Your task to perform on an android device: Open the phone app and click the voicemail tab. Image 0: 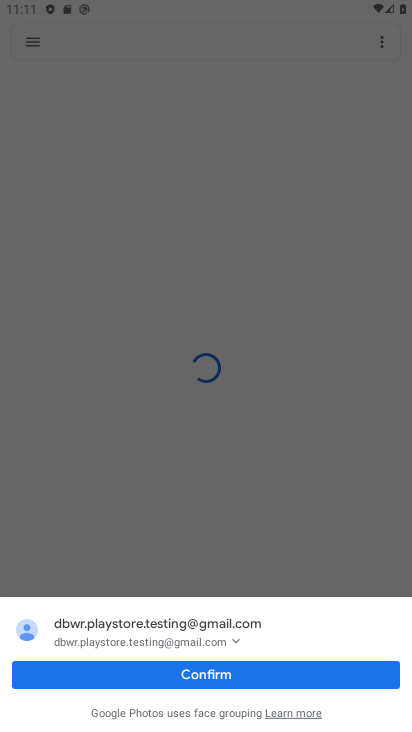
Step 0: press home button
Your task to perform on an android device: Open the phone app and click the voicemail tab. Image 1: 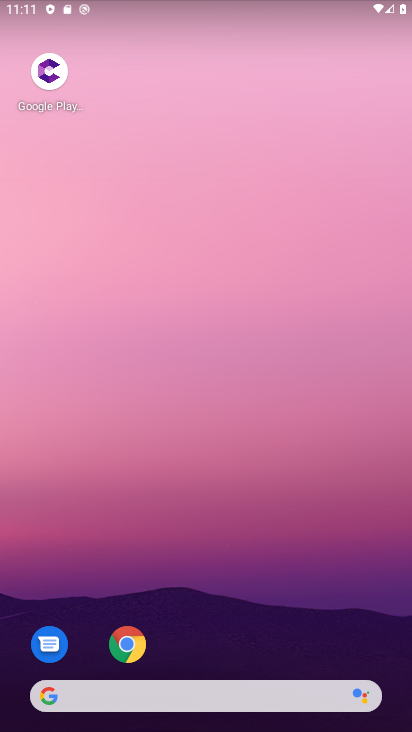
Step 1: drag from (283, 632) to (286, 136)
Your task to perform on an android device: Open the phone app and click the voicemail tab. Image 2: 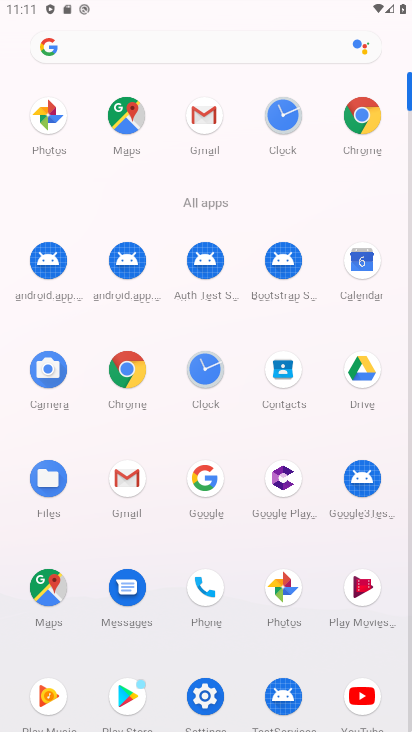
Step 2: drag from (230, 218) to (251, 56)
Your task to perform on an android device: Open the phone app and click the voicemail tab. Image 3: 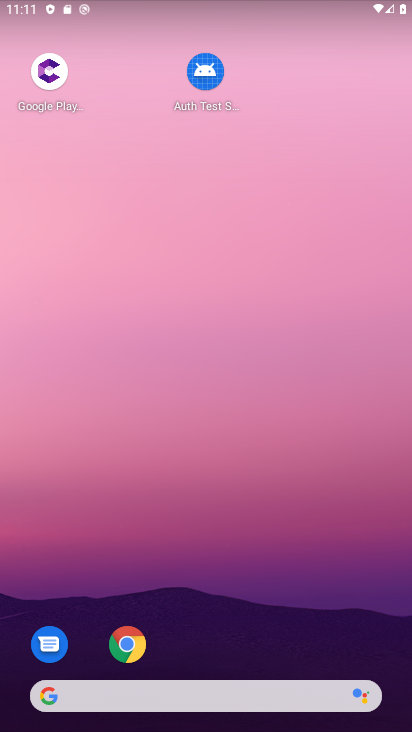
Step 3: drag from (226, 586) to (193, 9)
Your task to perform on an android device: Open the phone app and click the voicemail tab. Image 4: 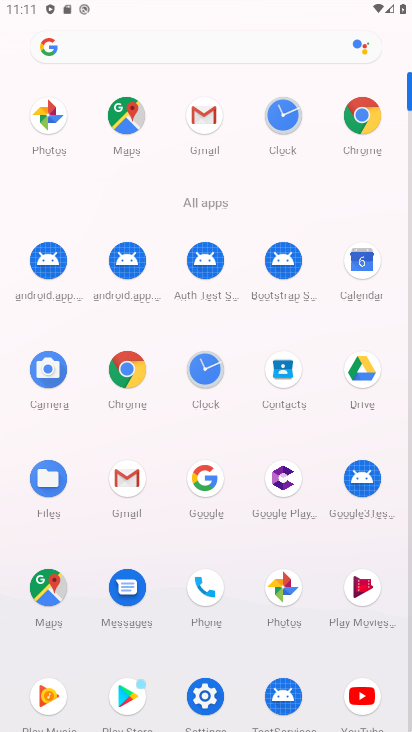
Step 4: click (192, 597)
Your task to perform on an android device: Open the phone app and click the voicemail tab. Image 5: 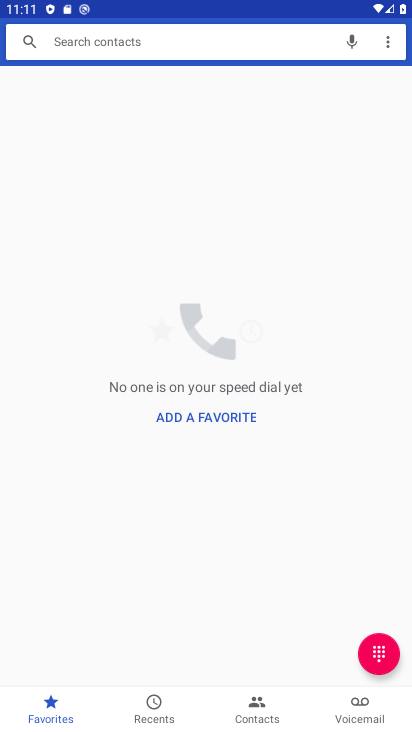
Step 5: click (371, 712)
Your task to perform on an android device: Open the phone app and click the voicemail tab. Image 6: 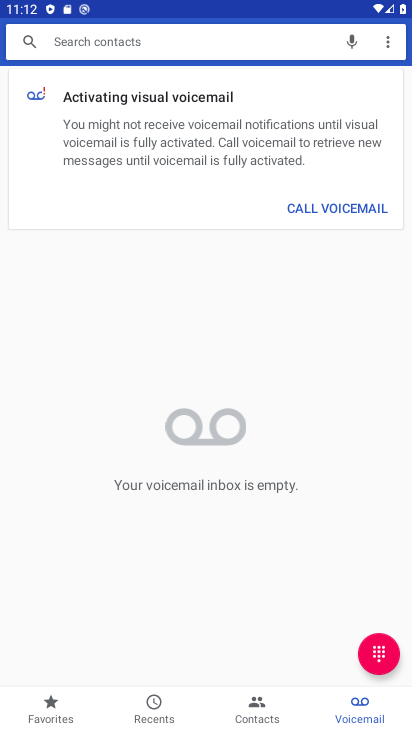
Step 6: task complete